Your task to perform on an android device: check storage Image 0: 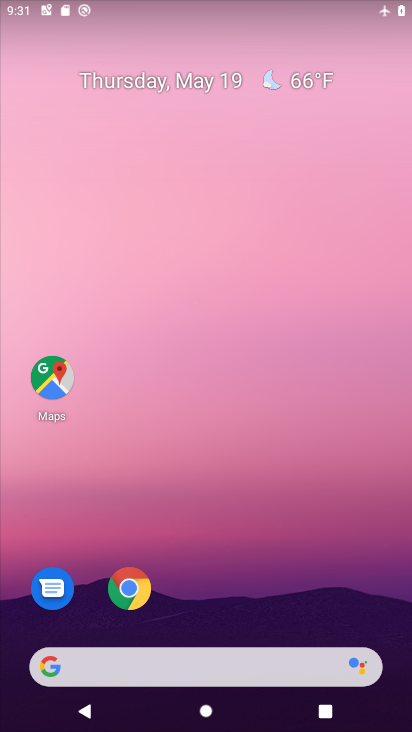
Step 0: drag from (367, 594) to (361, 227)
Your task to perform on an android device: check storage Image 1: 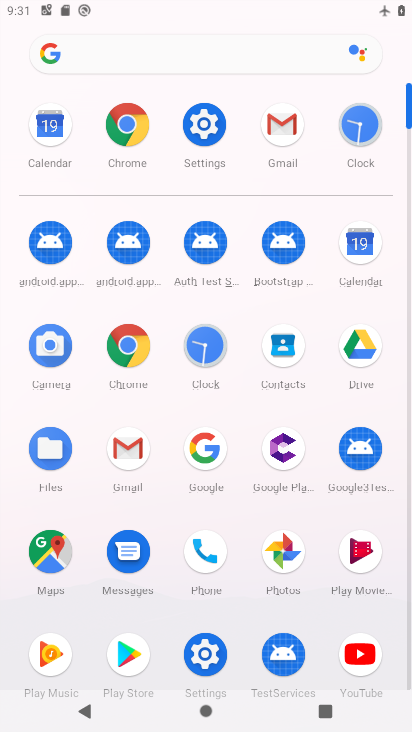
Step 1: click (195, 108)
Your task to perform on an android device: check storage Image 2: 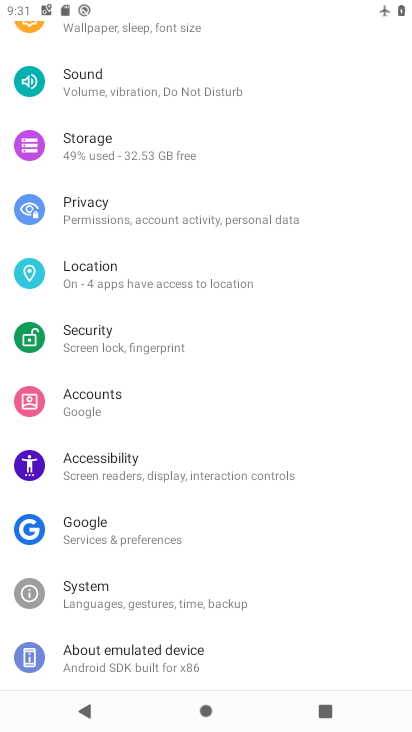
Step 2: drag from (348, 430) to (355, 240)
Your task to perform on an android device: check storage Image 3: 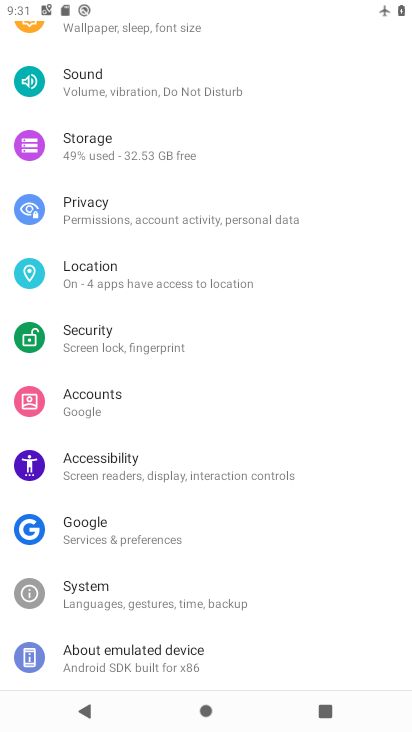
Step 3: drag from (336, 255) to (328, 391)
Your task to perform on an android device: check storage Image 4: 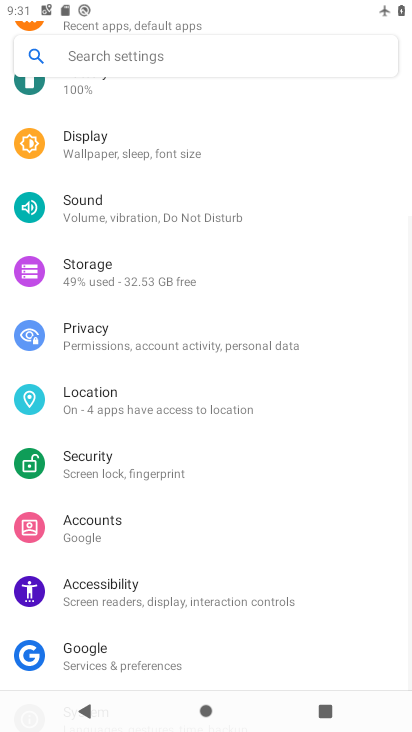
Step 4: drag from (321, 223) to (323, 361)
Your task to perform on an android device: check storage Image 5: 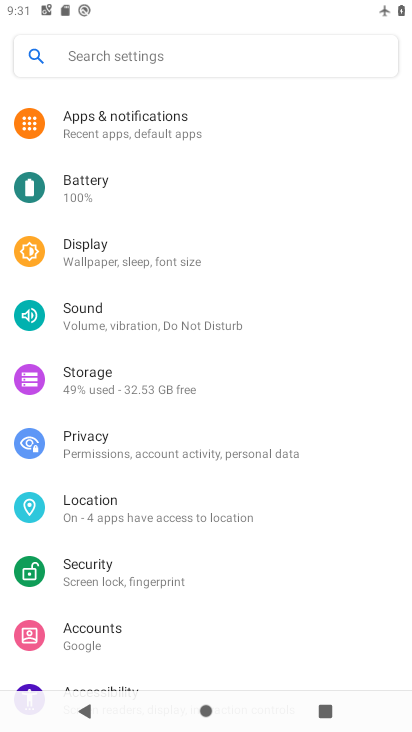
Step 5: drag from (315, 170) to (298, 347)
Your task to perform on an android device: check storage Image 6: 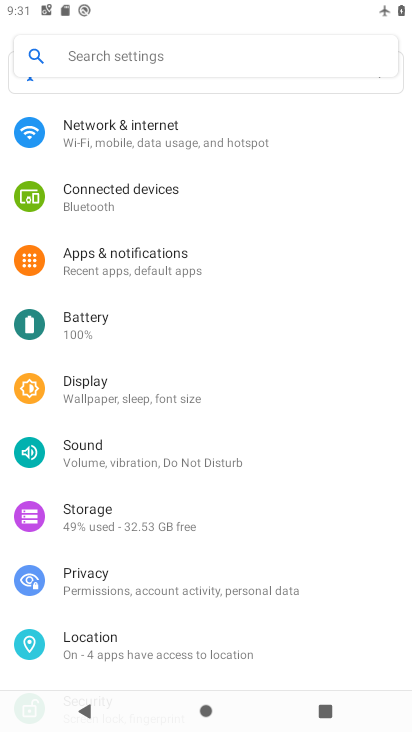
Step 6: click (159, 531)
Your task to perform on an android device: check storage Image 7: 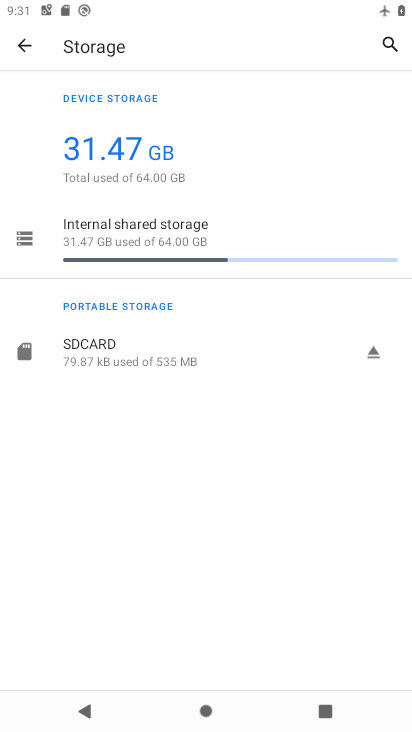
Step 7: task complete